Your task to perform on an android device: Is it going to rain today? Image 0: 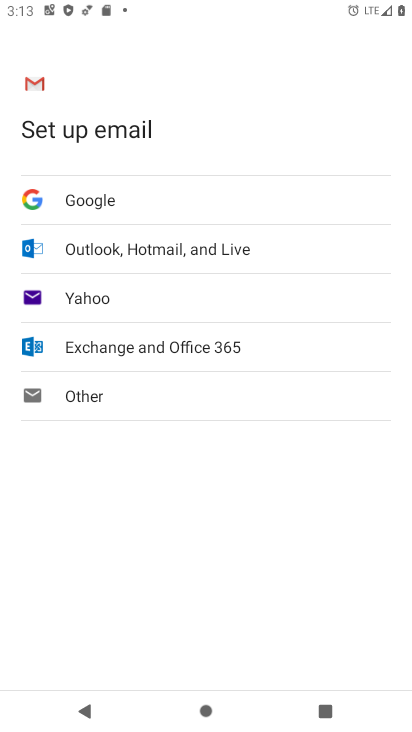
Step 0: press back button
Your task to perform on an android device: Is it going to rain today? Image 1: 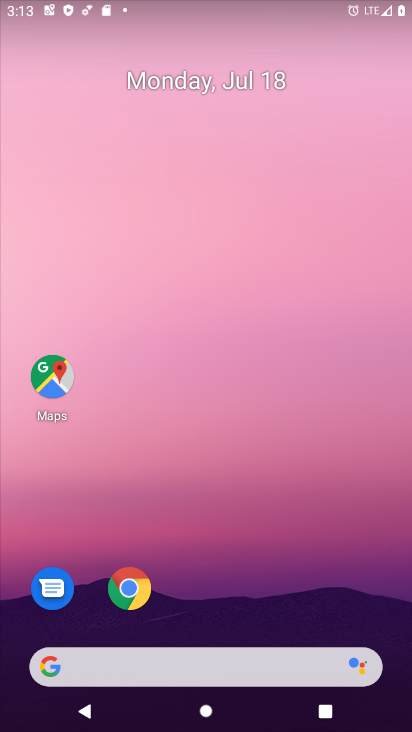
Step 1: click (194, 669)
Your task to perform on an android device: Is it going to rain today? Image 2: 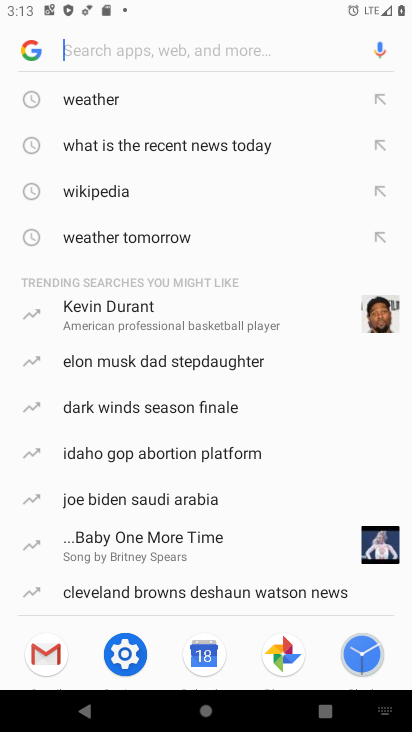
Step 2: click (125, 87)
Your task to perform on an android device: Is it going to rain today? Image 3: 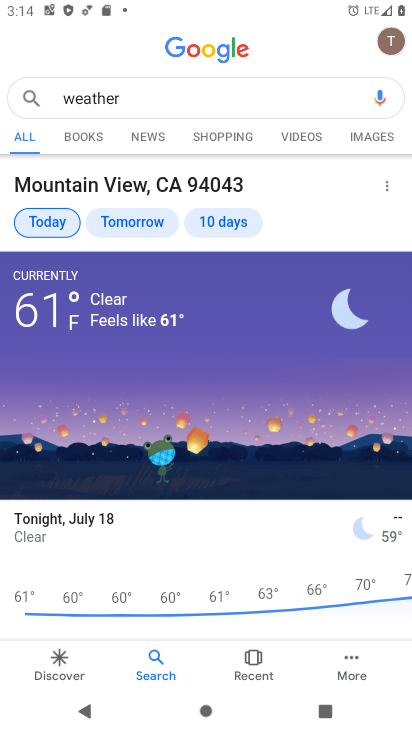
Step 3: task complete